Your task to perform on an android device: Open Android settings Image 0: 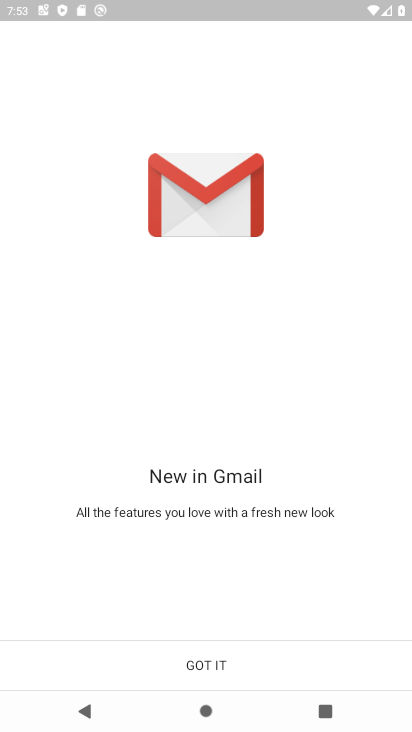
Step 0: press home button
Your task to perform on an android device: Open Android settings Image 1: 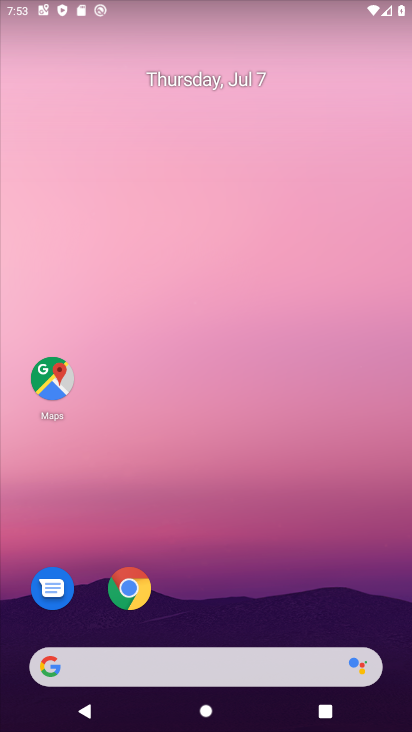
Step 1: drag from (332, 563) to (314, 83)
Your task to perform on an android device: Open Android settings Image 2: 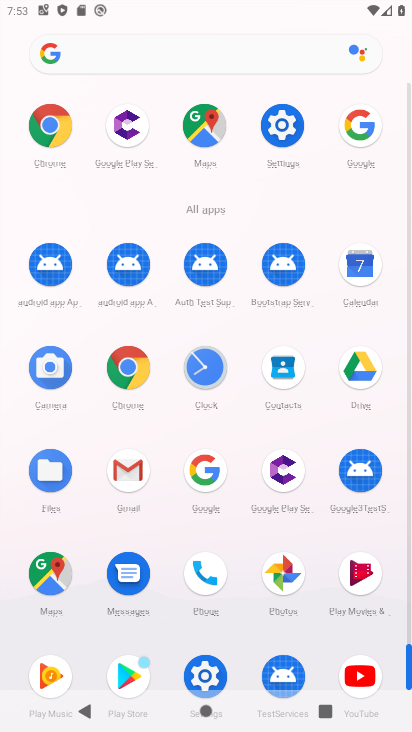
Step 2: click (288, 136)
Your task to perform on an android device: Open Android settings Image 3: 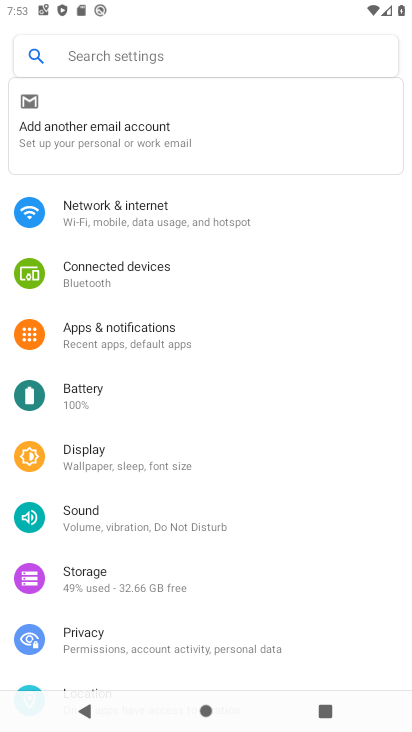
Step 3: task complete